Your task to perform on an android device: Open location settings Image 0: 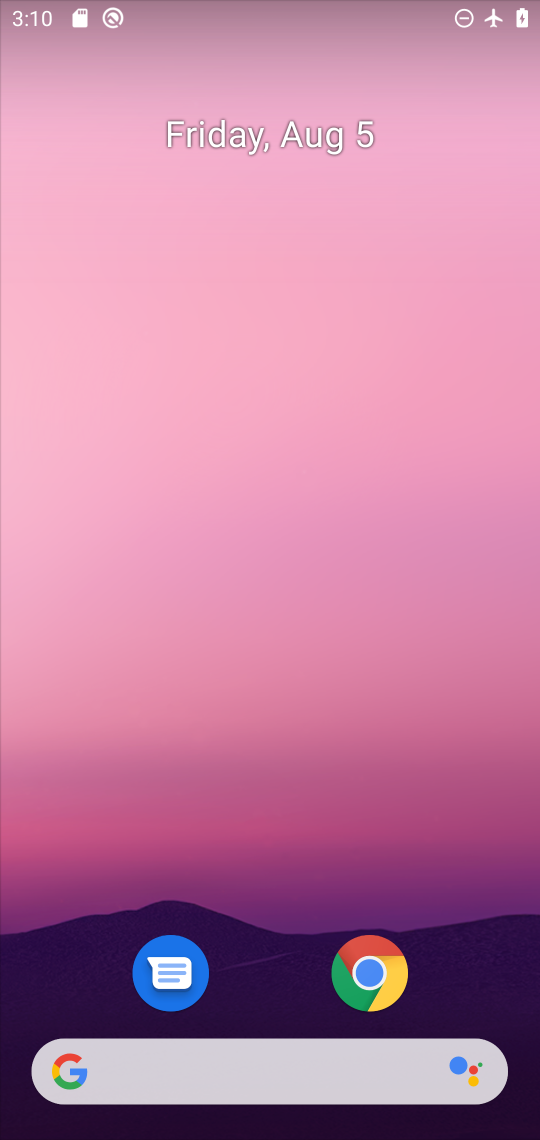
Step 0: drag from (249, 813) to (472, 225)
Your task to perform on an android device: Open location settings Image 1: 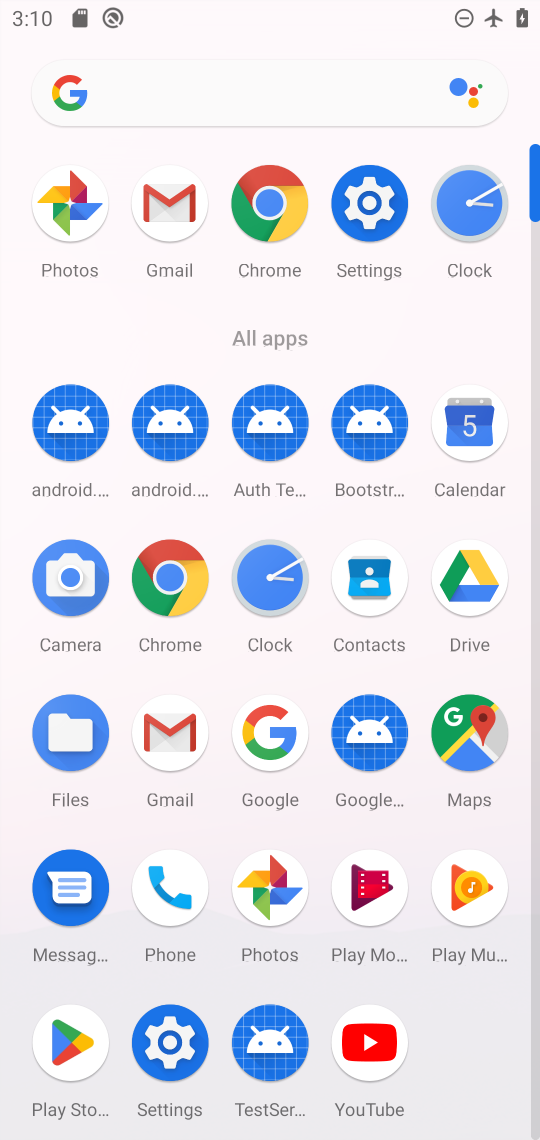
Step 1: click (166, 1061)
Your task to perform on an android device: Open location settings Image 2: 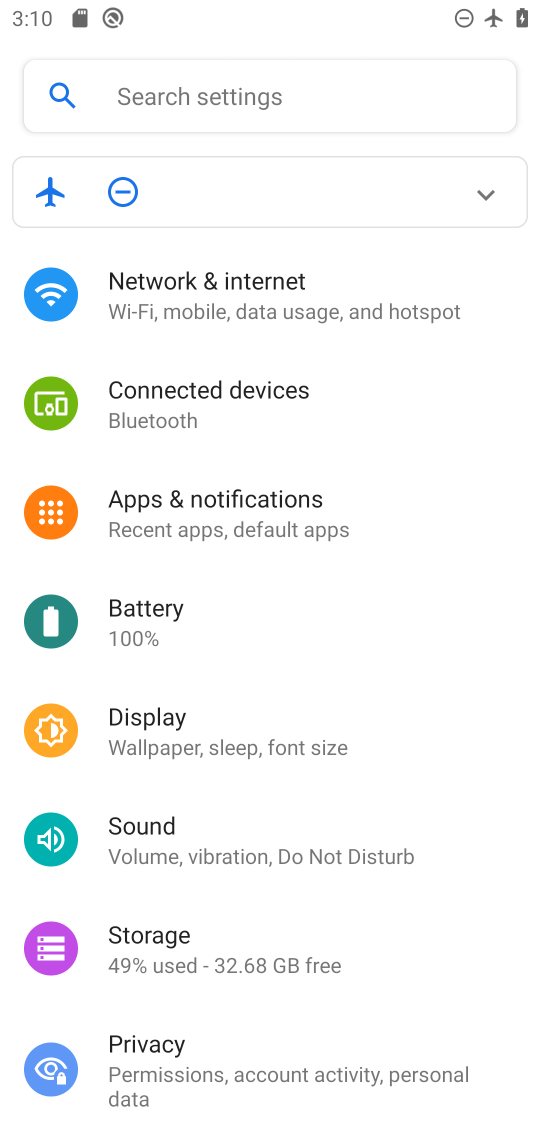
Step 2: drag from (163, 978) to (158, 329)
Your task to perform on an android device: Open location settings Image 3: 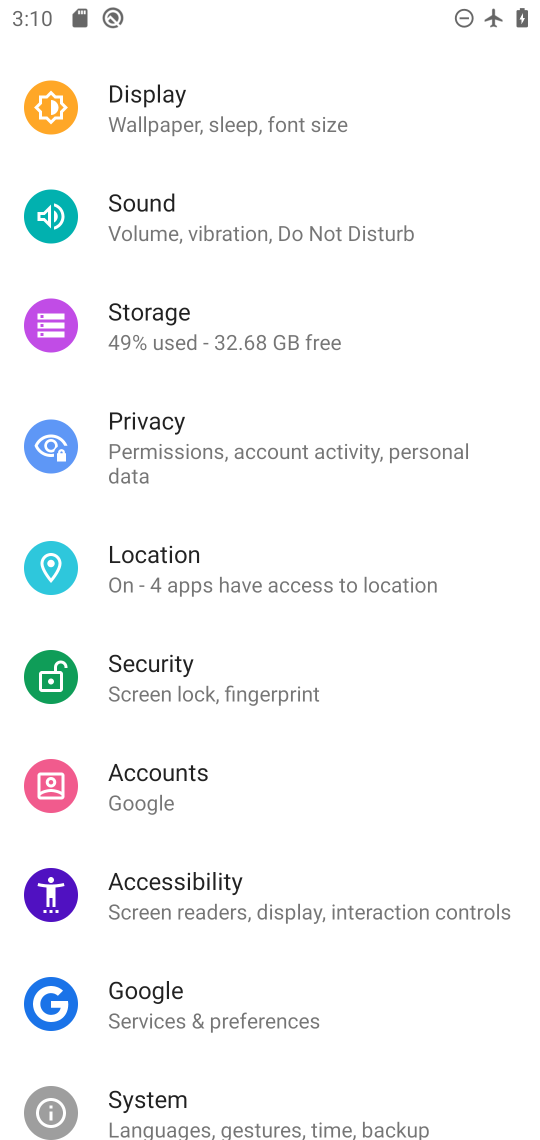
Step 3: click (176, 601)
Your task to perform on an android device: Open location settings Image 4: 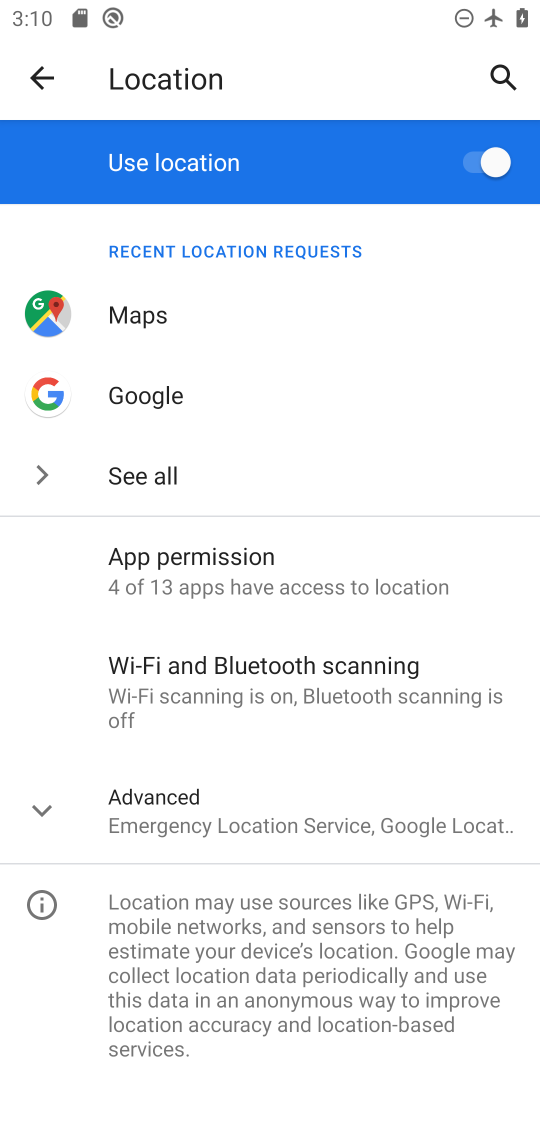
Step 4: click (417, 812)
Your task to perform on an android device: Open location settings Image 5: 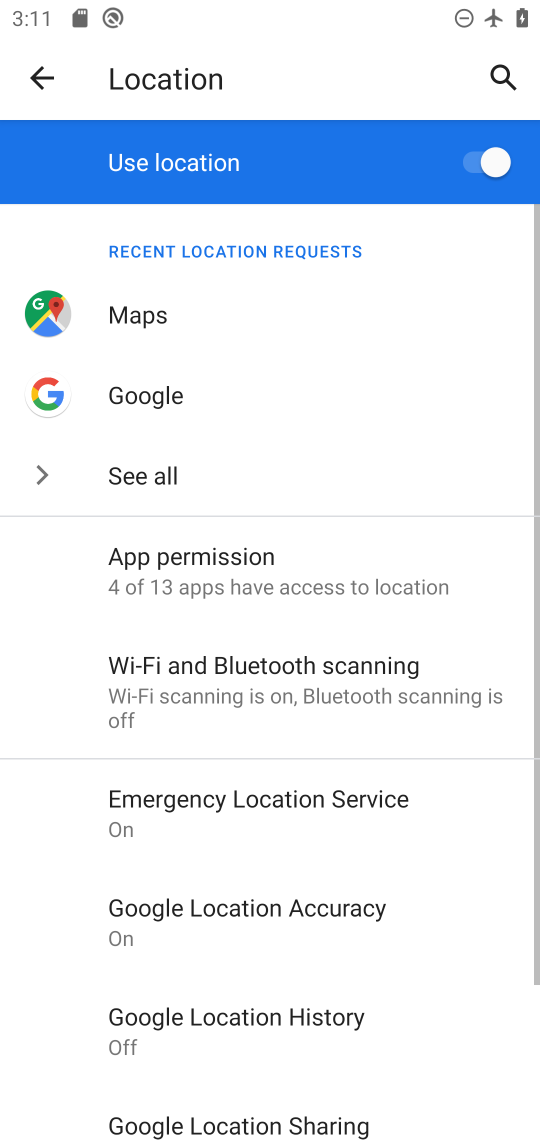
Step 5: task complete